Your task to perform on an android device: Open calendar and show me the fourth week of next month Image 0: 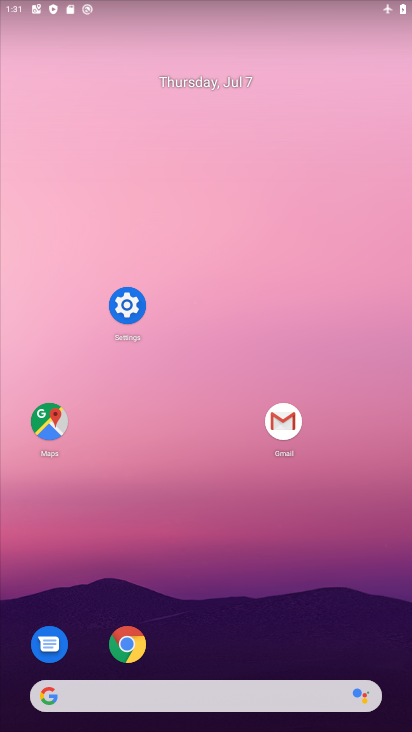
Step 0: drag from (389, 494) to (387, 144)
Your task to perform on an android device: Open calendar and show me the fourth week of next month Image 1: 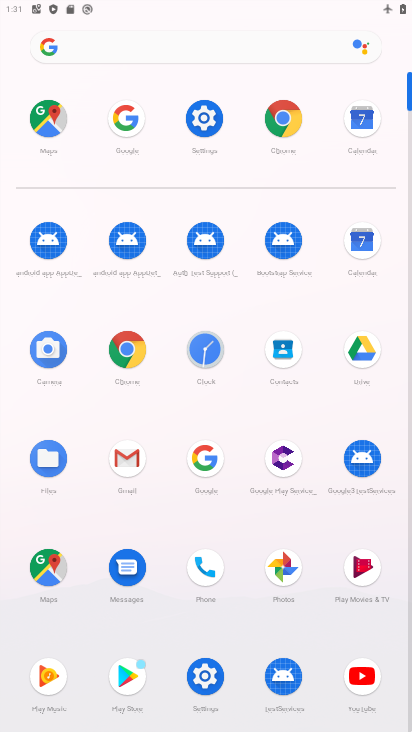
Step 1: click (355, 123)
Your task to perform on an android device: Open calendar and show me the fourth week of next month Image 2: 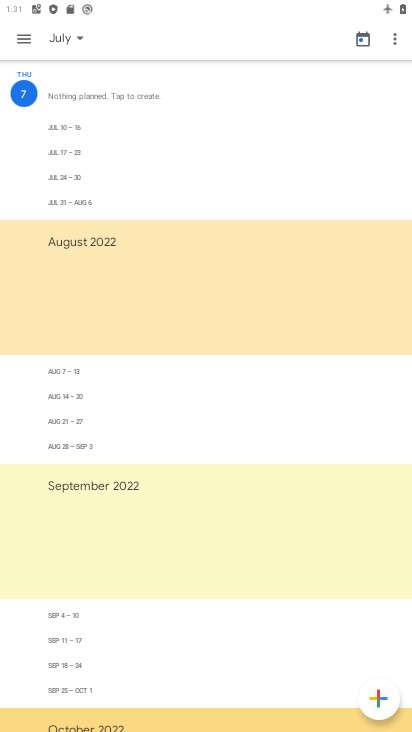
Step 2: click (71, 32)
Your task to perform on an android device: Open calendar and show me the fourth week of next month Image 3: 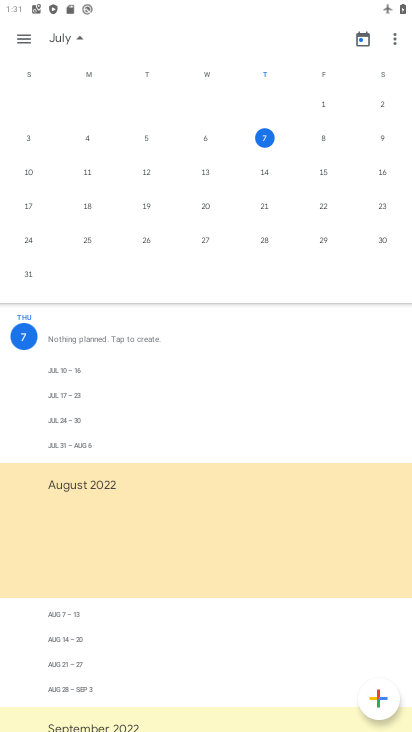
Step 3: drag from (391, 188) to (148, 181)
Your task to perform on an android device: Open calendar and show me the fourth week of next month Image 4: 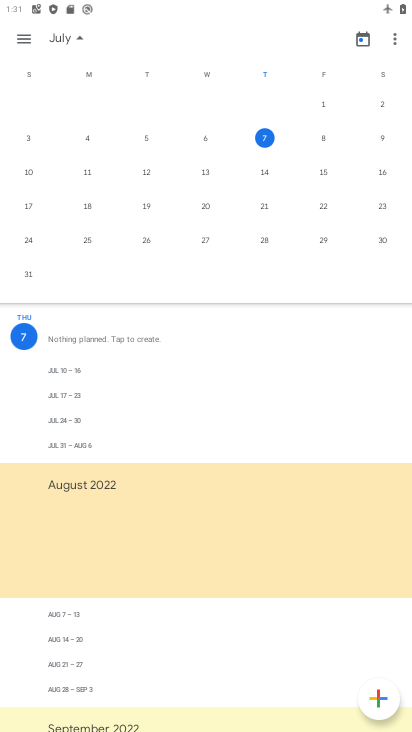
Step 4: drag from (399, 200) to (76, 184)
Your task to perform on an android device: Open calendar and show me the fourth week of next month Image 5: 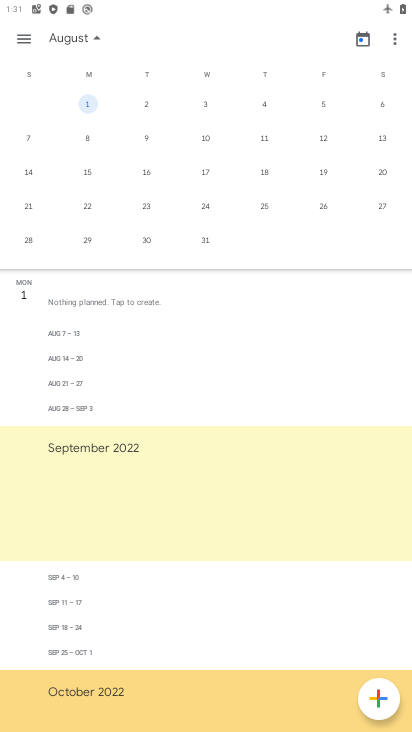
Step 5: click (265, 206)
Your task to perform on an android device: Open calendar and show me the fourth week of next month Image 6: 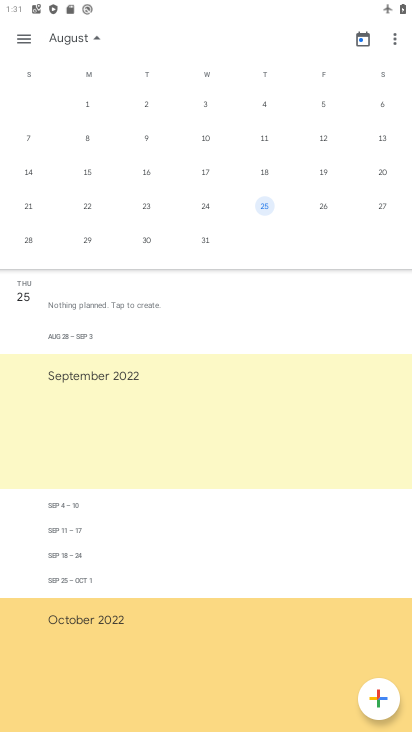
Step 6: task complete